Your task to perform on an android device: Open Google Maps Image 0: 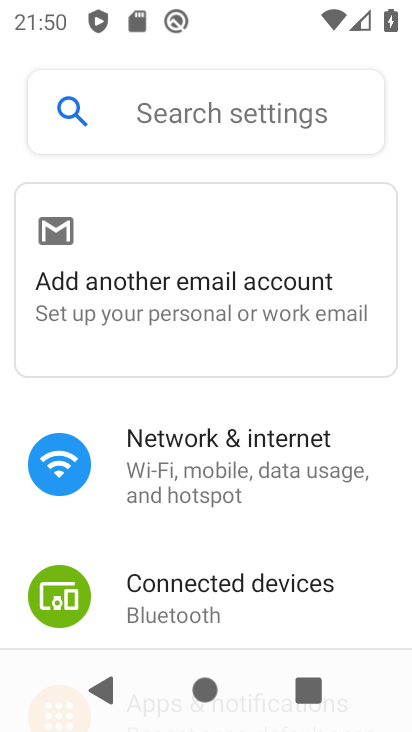
Step 0: press home button
Your task to perform on an android device: Open Google Maps Image 1: 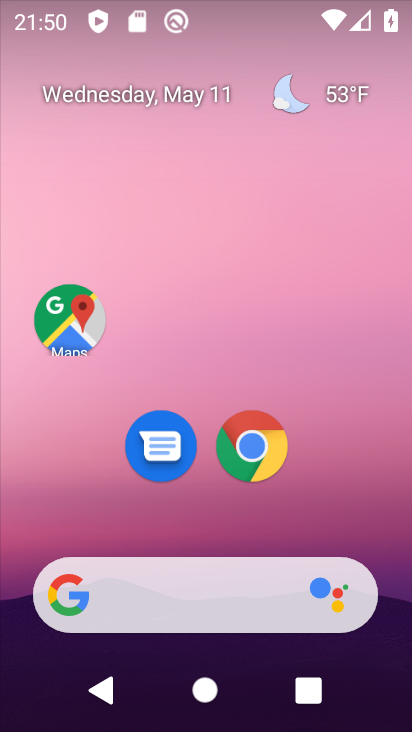
Step 1: click (74, 328)
Your task to perform on an android device: Open Google Maps Image 2: 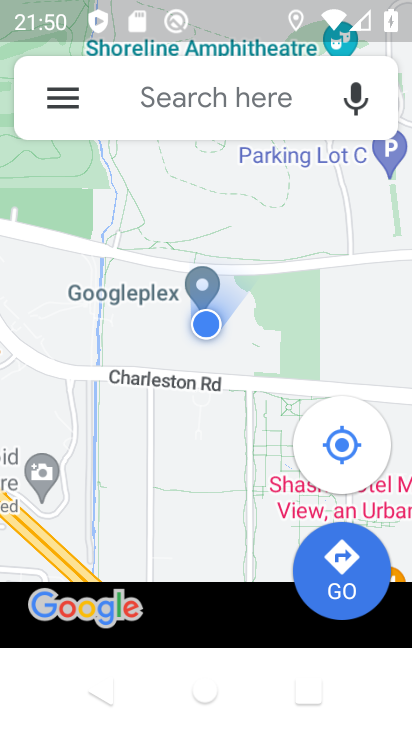
Step 2: task complete